Your task to perform on an android device: Open internet settings Image 0: 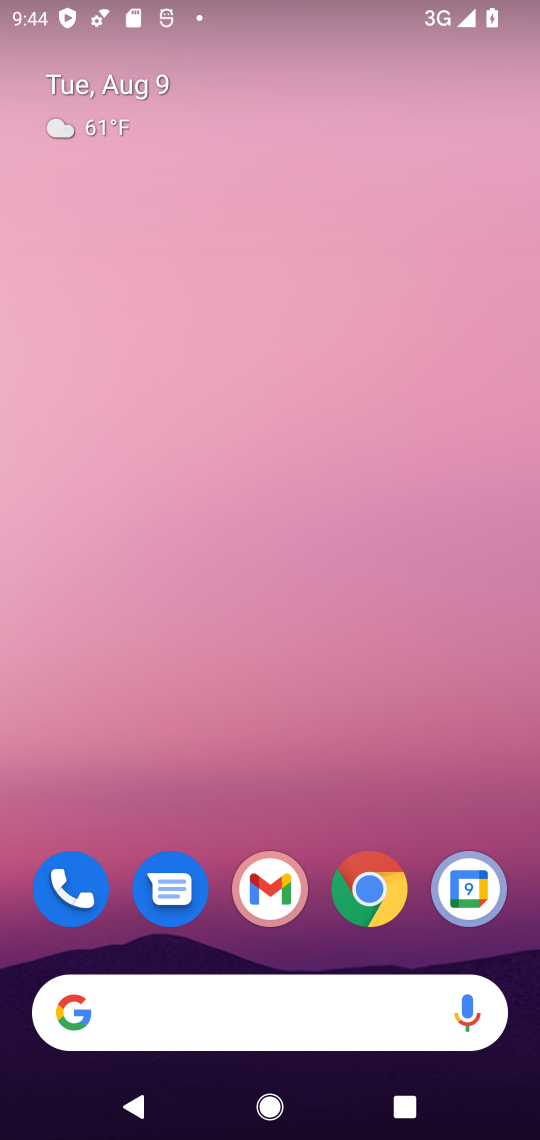
Step 0: click (324, 152)
Your task to perform on an android device: Open internet settings Image 1: 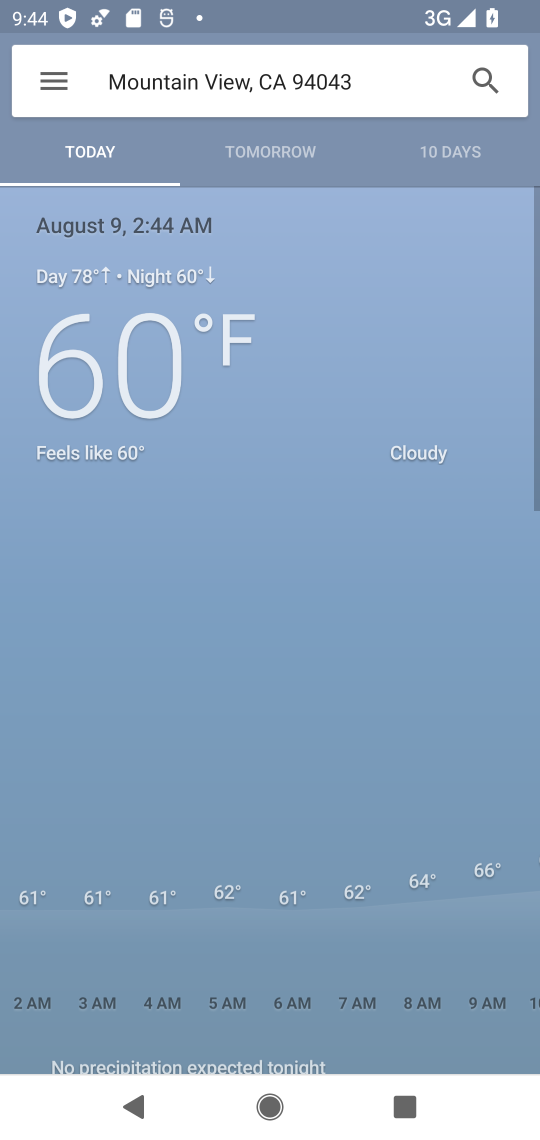
Step 1: press home button
Your task to perform on an android device: Open internet settings Image 2: 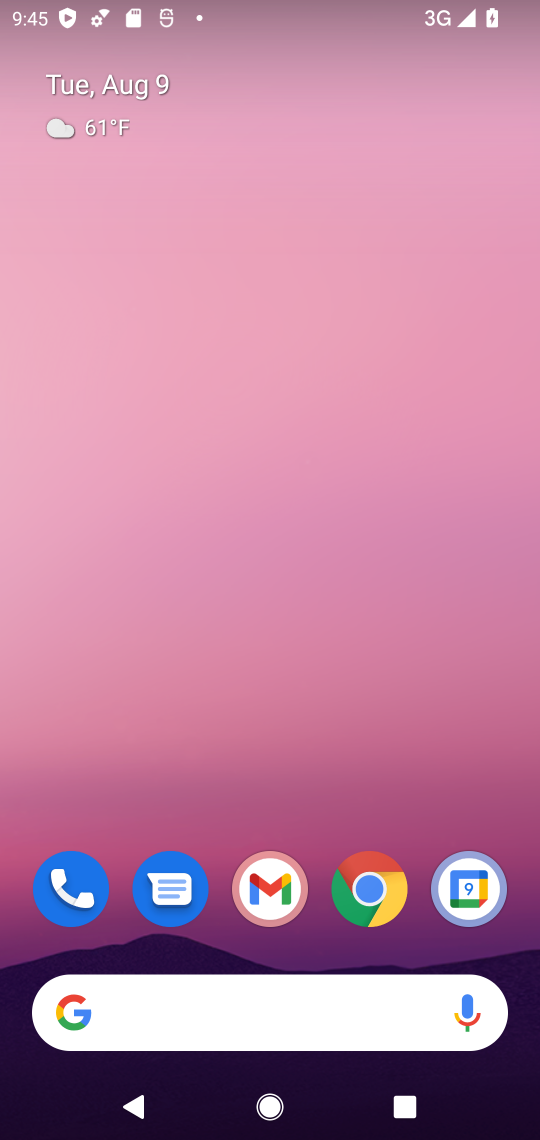
Step 2: drag from (260, 1069) to (438, 32)
Your task to perform on an android device: Open internet settings Image 3: 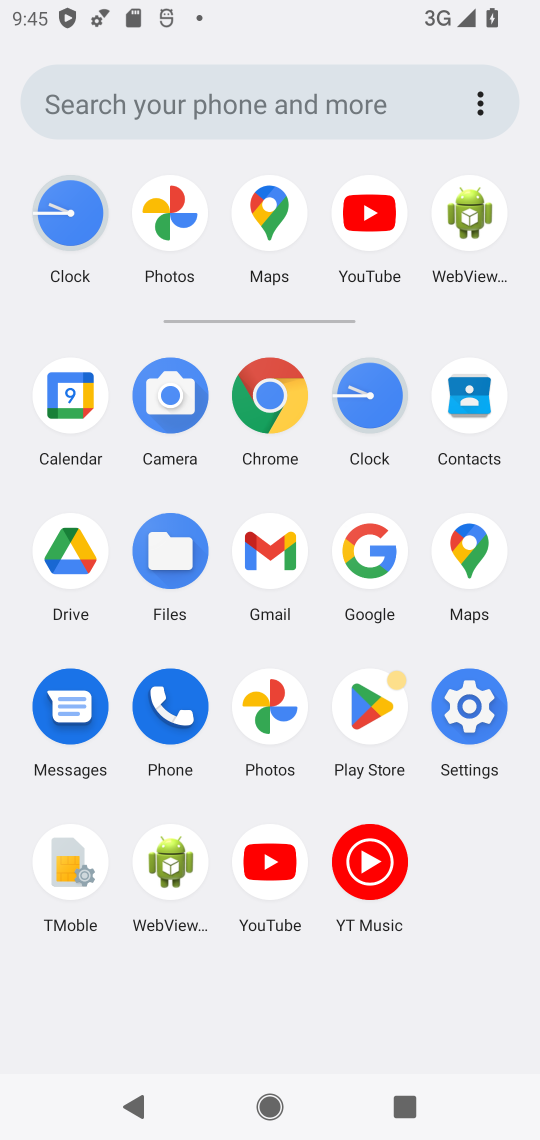
Step 3: click (469, 698)
Your task to perform on an android device: Open internet settings Image 4: 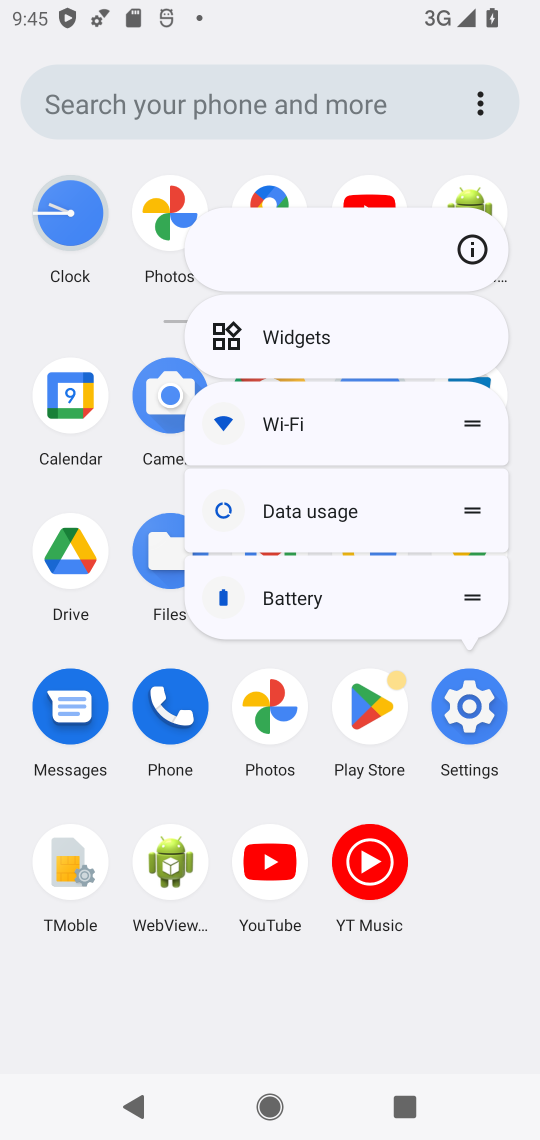
Step 4: click (466, 693)
Your task to perform on an android device: Open internet settings Image 5: 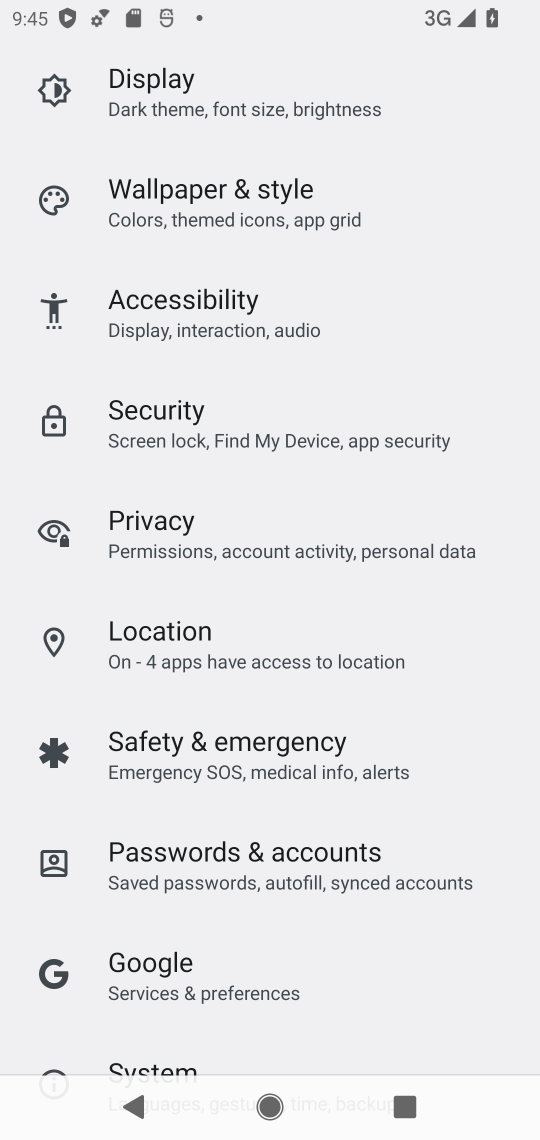
Step 5: drag from (328, 306) to (190, 966)
Your task to perform on an android device: Open internet settings Image 6: 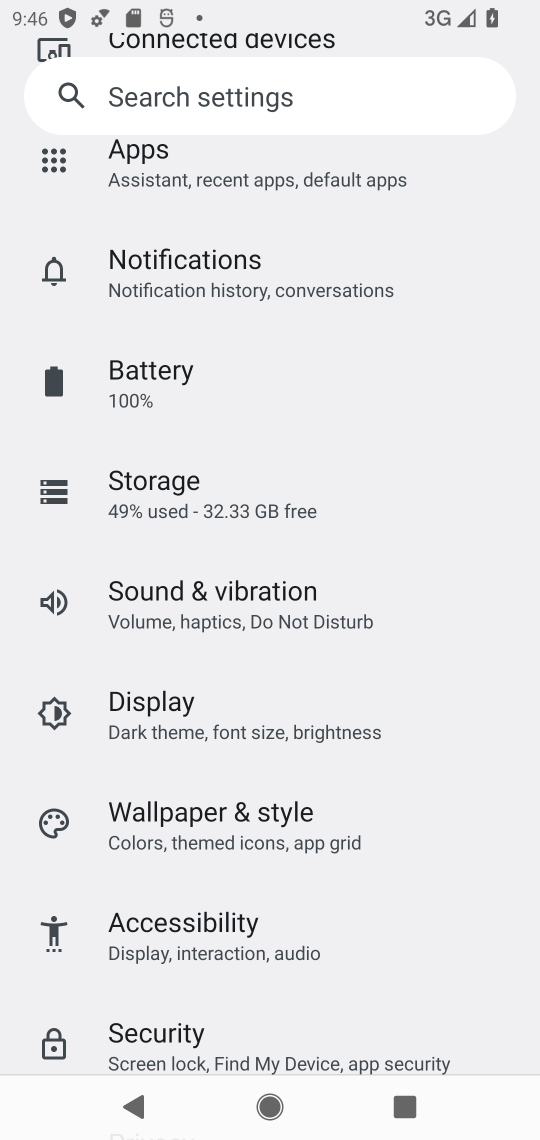
Step 6: drag from (206, 338) to (287, 1133)
Your task to perform on an android device: Open internet settings Image 7: 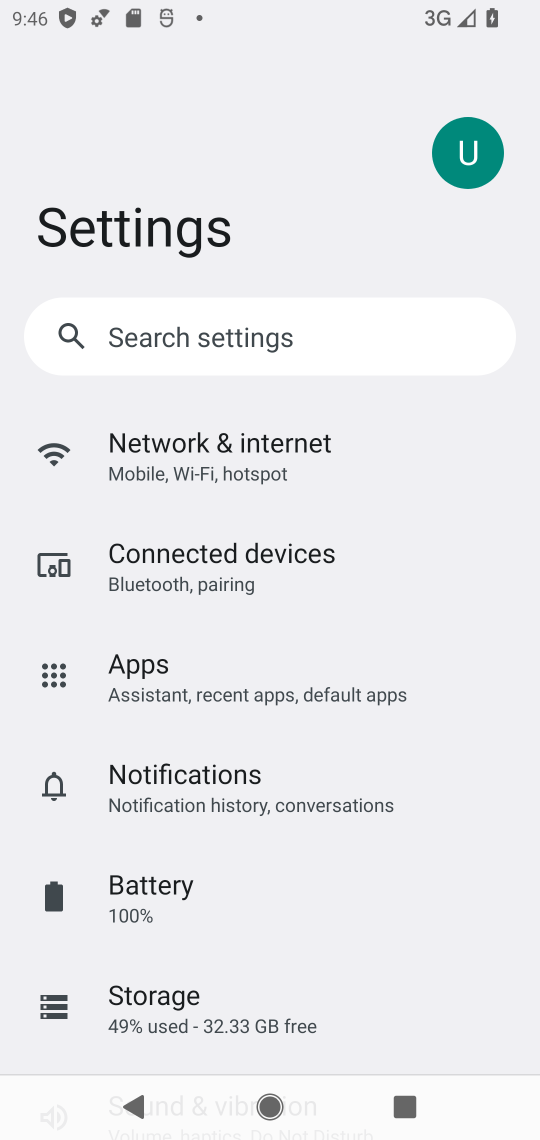
Step 7: click (265, 453)
Your task to perform on an android device: Open internet settings Image 8: 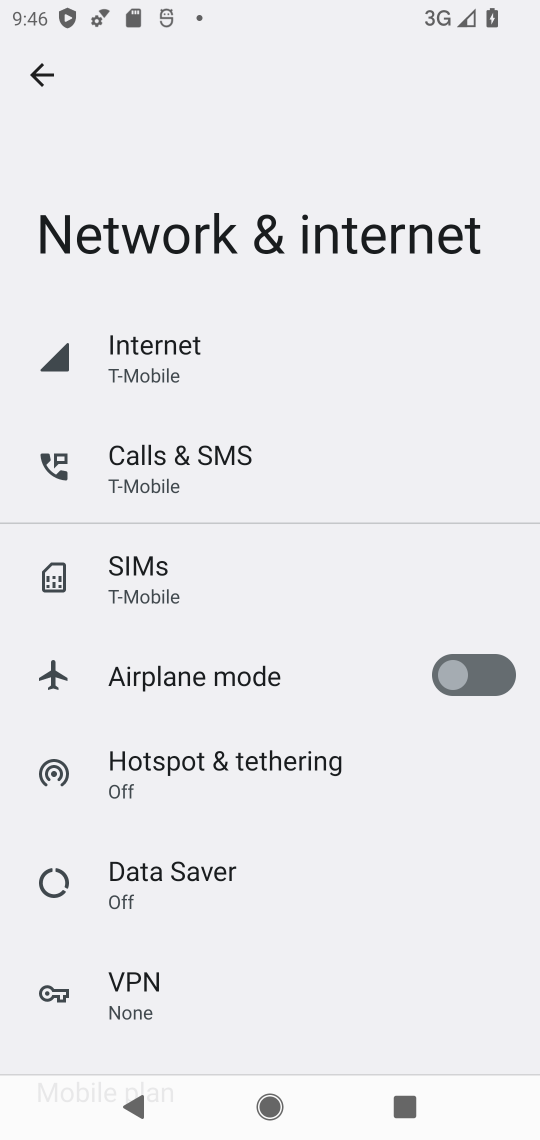
Step 8: click (182, 377)
Your task to perform on an android device: Open internet settings Image 9: 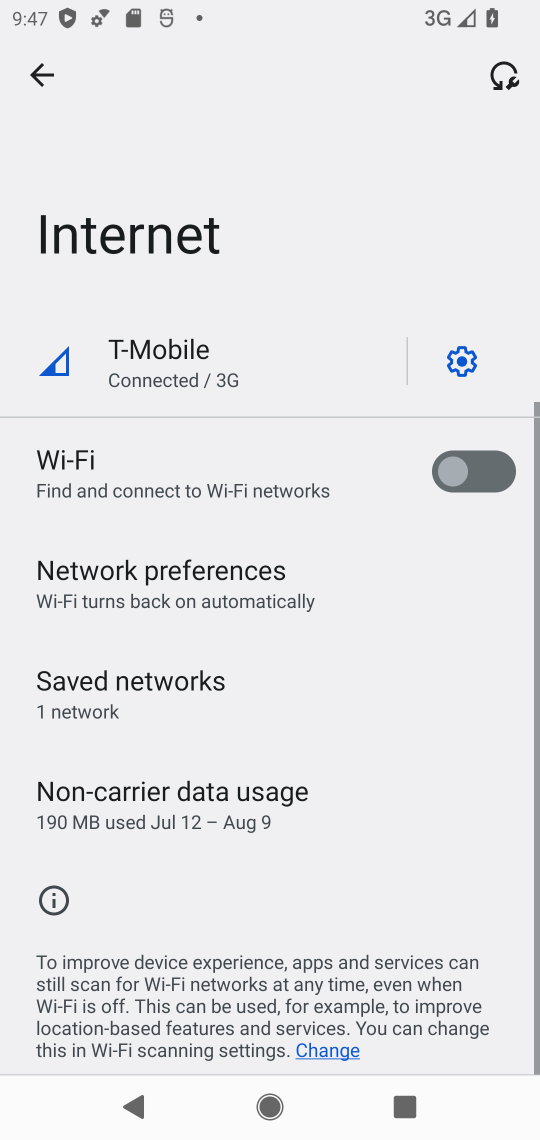
Step 9: task complete